Your task to perform on an android device: change the clock style Image 0: 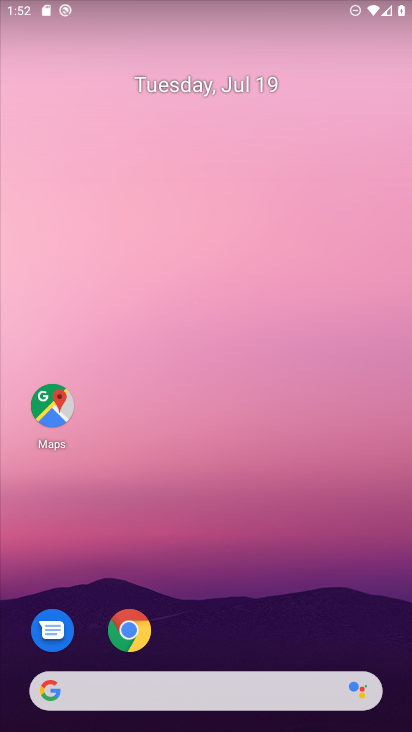
Step 0: press home button
Your task to perform on an android device: change the clock style Image 1: 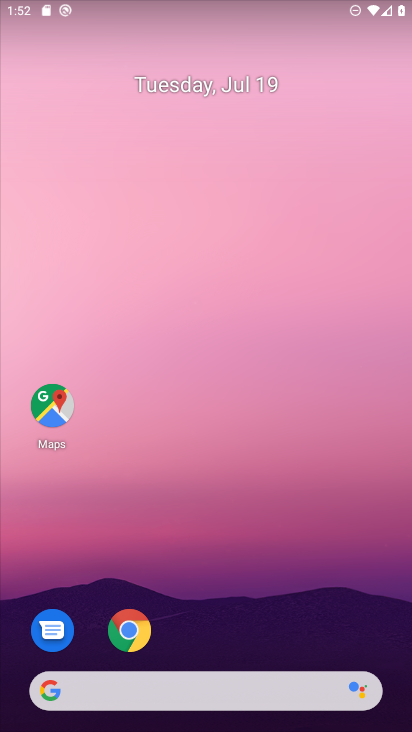
Step 1: drag from (198, 654) to (295, 125)
Your task to perform on an android device: change the clock style Image 2: 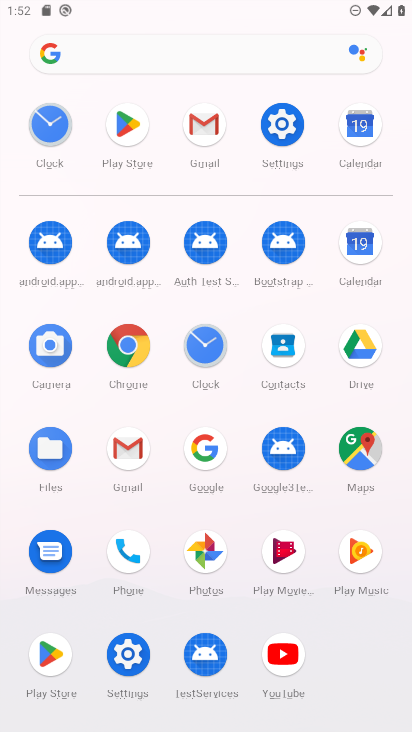
Step 2: drag from (221, 616) to (289, 156)
Your task to perform on an android device: change the clock style Image 3: 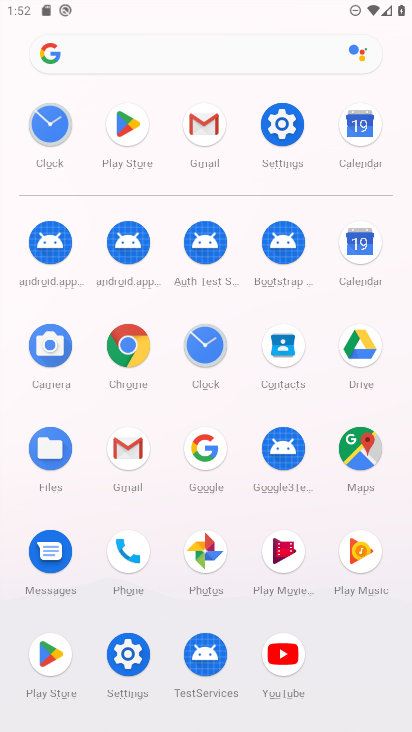
Step 3: drag from (198, 575) to (260, 142)
Your task to perform on an android device: change the clock style Image 4: 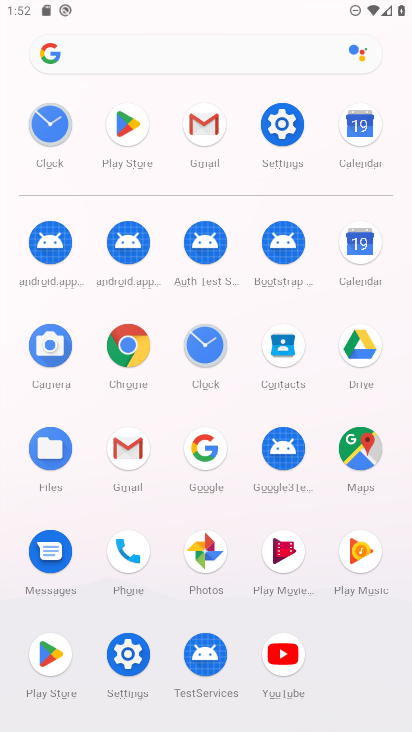
Step 4: click (58, 122)
Your task to perform on an android device: change the clock style Image 5: 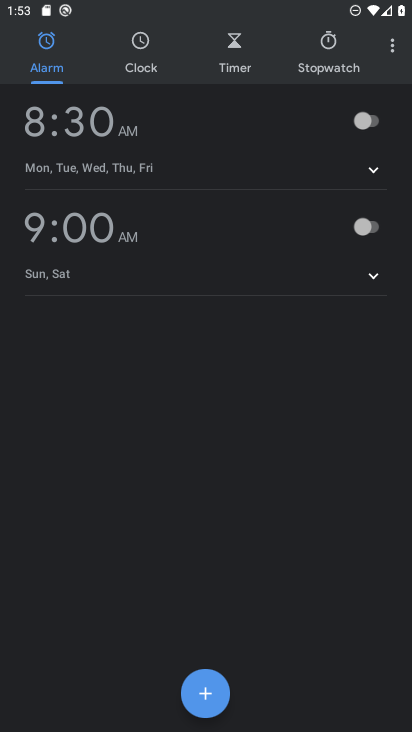
Step 5: click (389, 45)
Your task to perform on an android device: change the clock style Image 6: 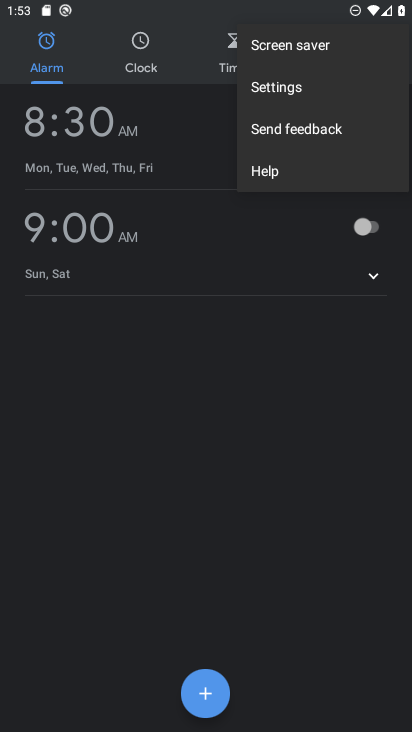
Step 6: click (276, 86)
Your task to perform on an android device: change the clock style Image 7: 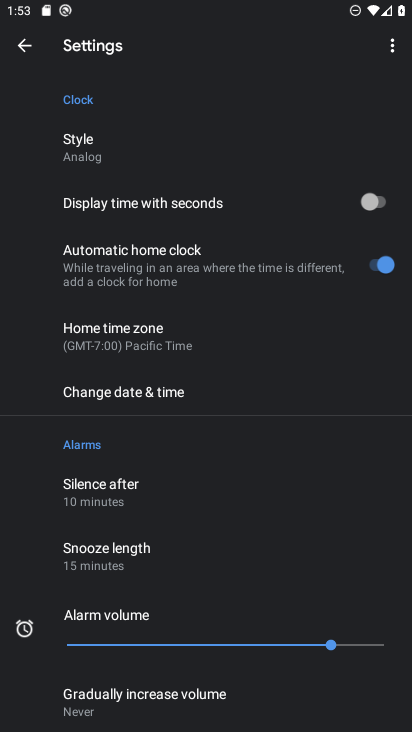
Step 7: click (84, 141)
Your task to perform on an android device: change the clock style Image 8: 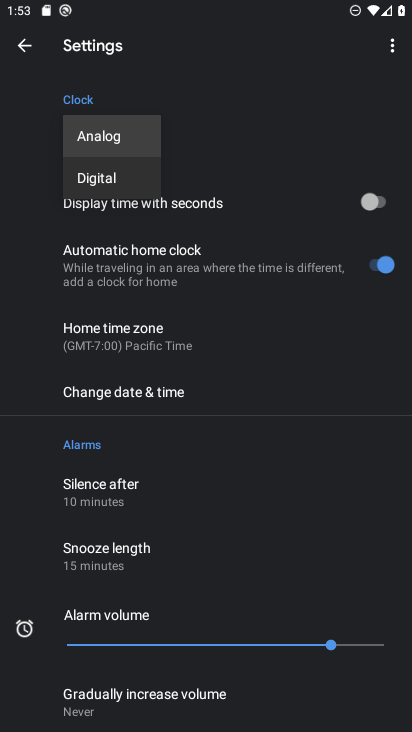
Step 8: click (117, 182)
Your task to perform on an android device: change the clock style Image 9: 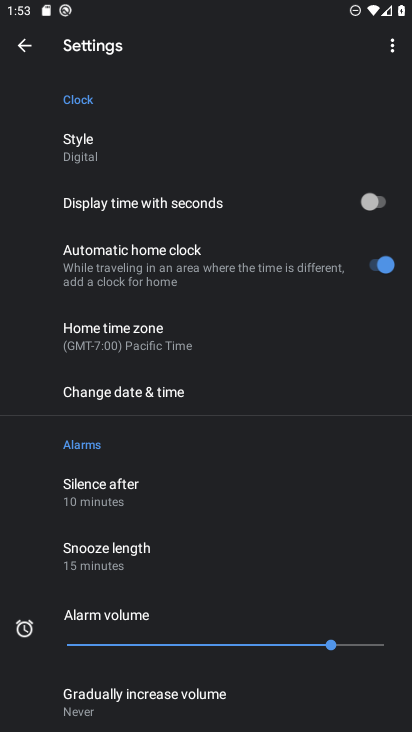
Step 9: task complete